Your task to perform on an android device: Search for sushi restaurants on Maps Image 0: 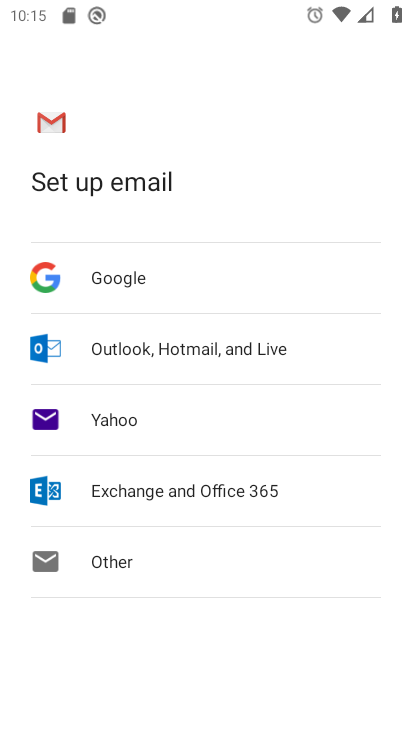
Step 0: press home button
Your task to perform on an android device: Search for sushi restaurants on Maps Image 1: 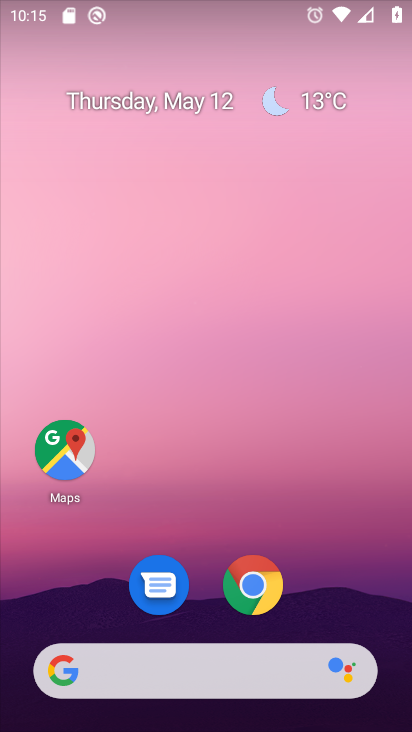
Step 1: click (64, 461)
Your task to perform on an android device: Search for sushi restaurants on Maps Image 2: 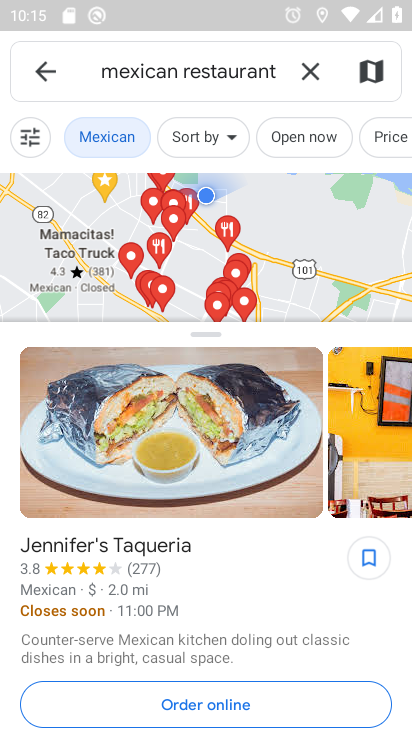
Step 2: click (309, 65)
Your task to perform on an android device: Search for sushi restaurants on Maps Image 3: 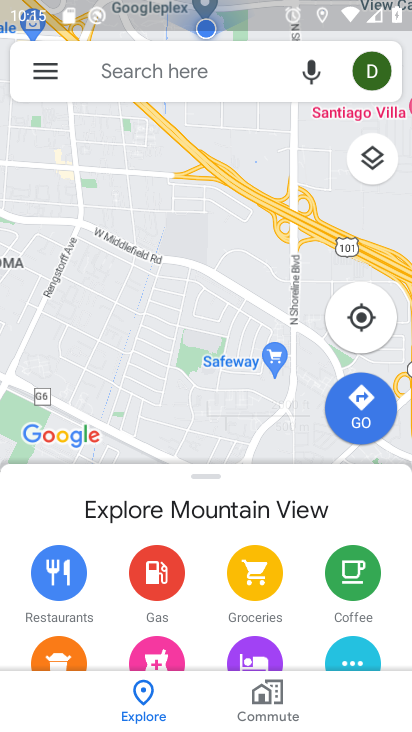
Step 3: click (197, 66)
Your task to perform on an android device: Search for sushi restaurants on Maps Image 4: 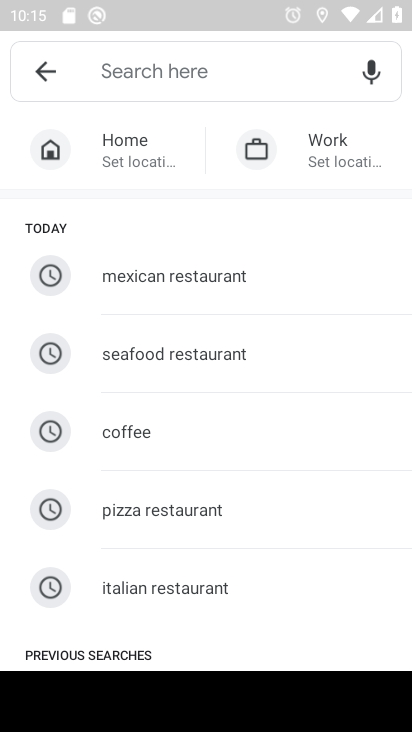
Step 4: type "sushi restaurants"
Your task to perform on an android device: Search for sushi restaurants on Maps Image 5: 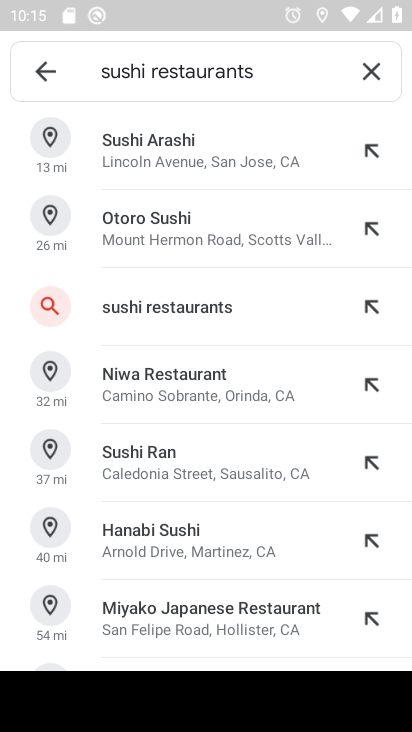
Step 5: click (252, 312)
Your task to perform on an android device: Search for sushi restaurants on Maps Image 6: 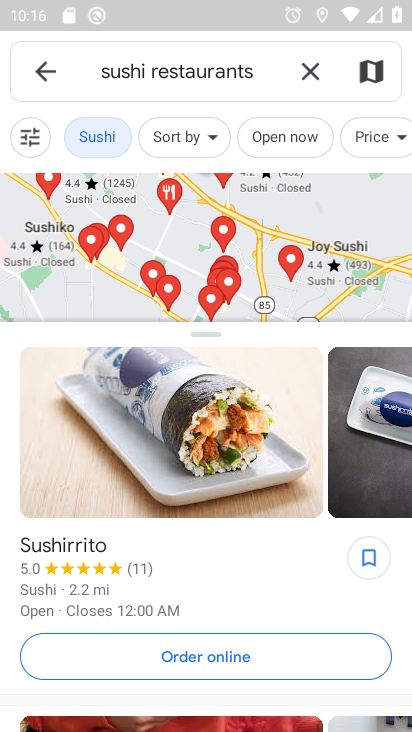
Step 6: task complete